Your task to perform on an android device: clear history in the chrome app Image 0: 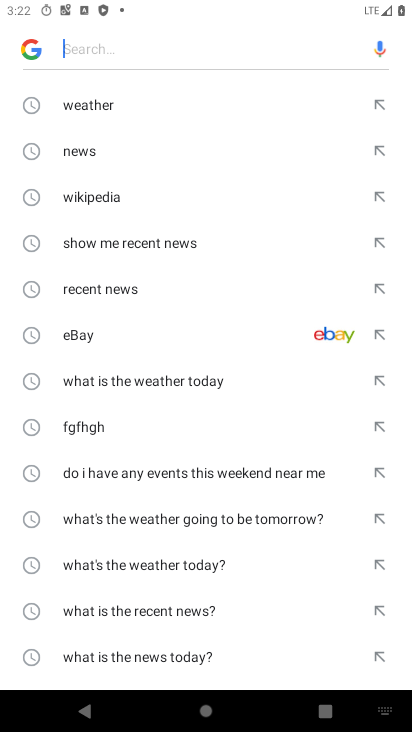
Step 0: press home button
Your task to perform on an android device: clear history in the chrome app Image 1: 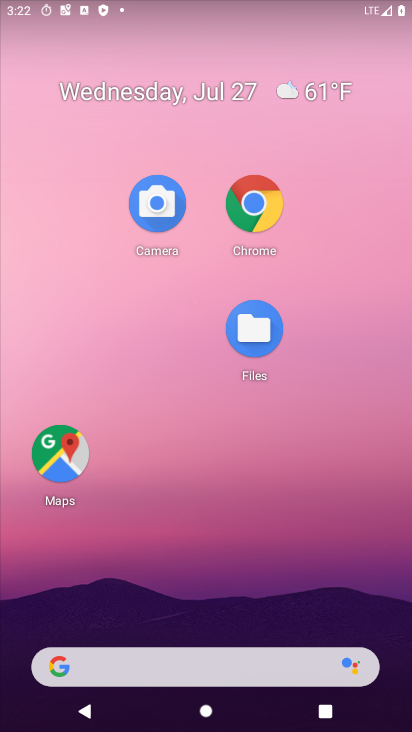
Step 1: click (244, 226)
Your task to perform on an android device: clear history in the chrome app Image 2: 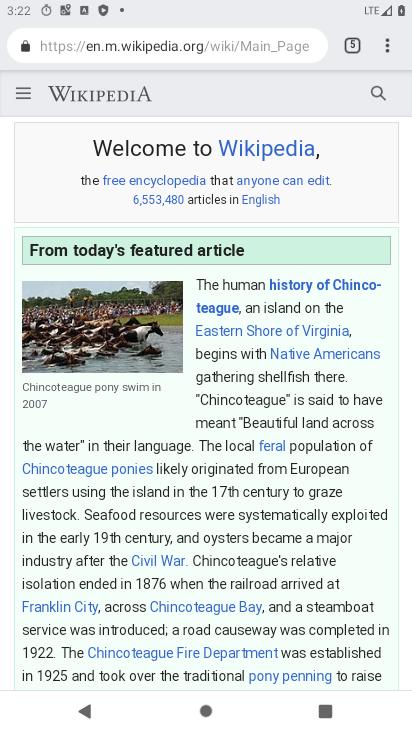
Step 2: click (380, 55)
Your task to perform on an android device: clear history in the chrome app Image 3: 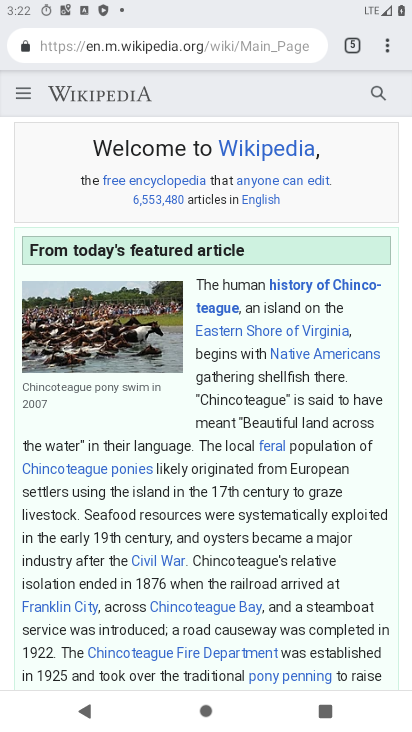
Step 3: drag from (386, 45) to (231, 266)
Your task to perform on an android device: clear history in the chrome app Image 4: 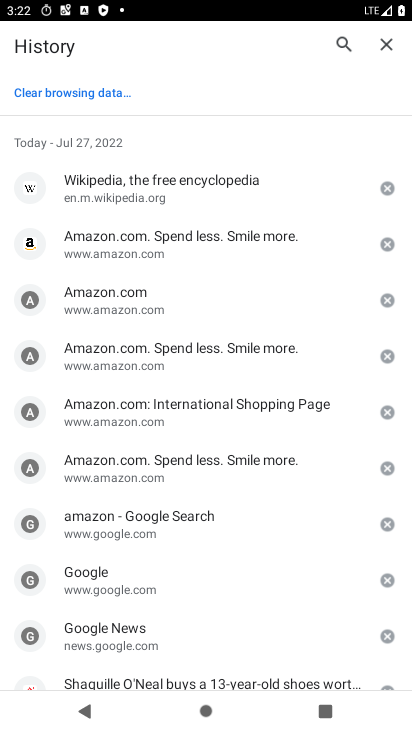
Step 4: click (66, 101)
Your task to perform on an android device: clear history in the chrome app Image 5: 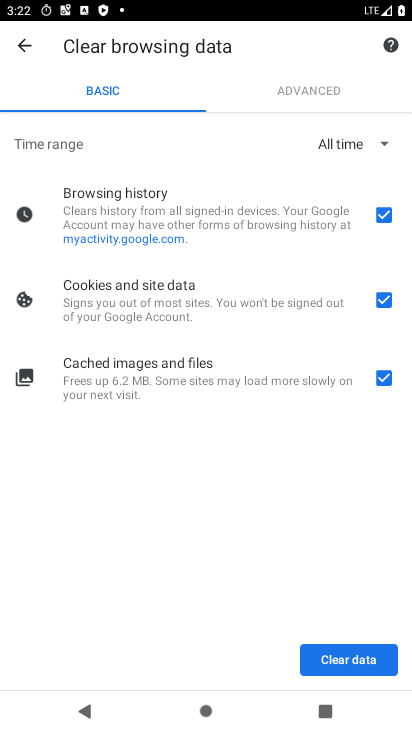
Step 5: click (355, 656)
Your task to perform on an android device: clear history in the chrome app Image 6: 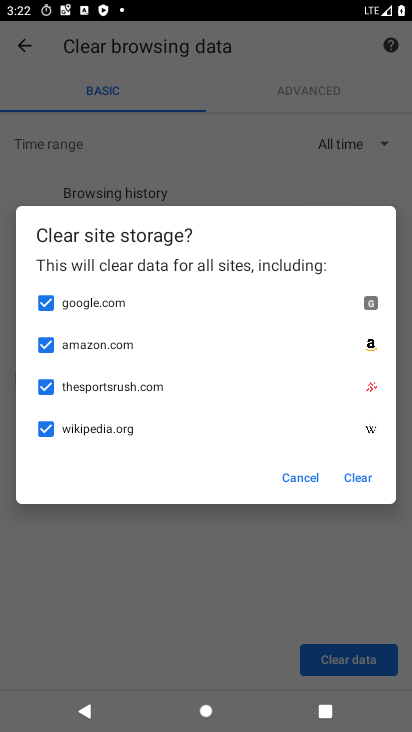
Step 6: click (356, 473)
Your task to perform on an android device: clear history in the chrome app Image 7: 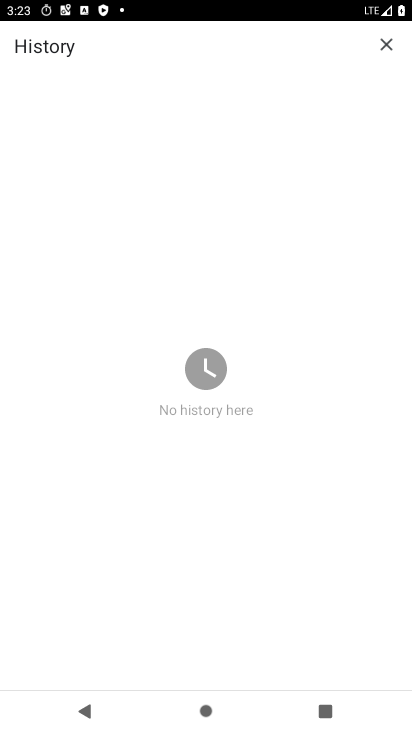
Step 7: task complete